Your task to perform on an android device: create a new album in the google photos Image 0: 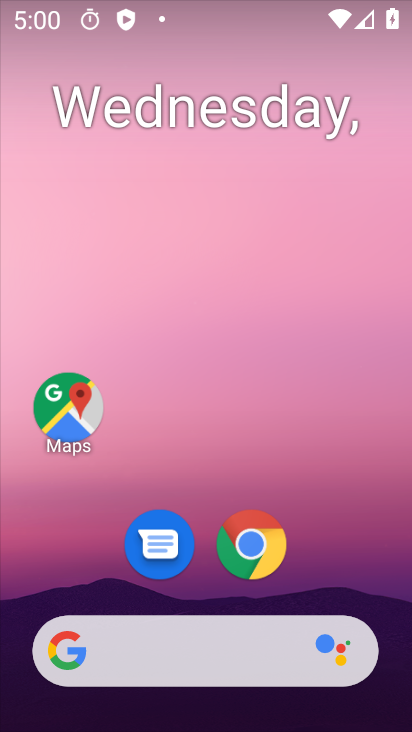
Step 0: drag from (187, 623) to (191, 145)
Your task to perform on an android device: create a new album in the google photos Image 1: 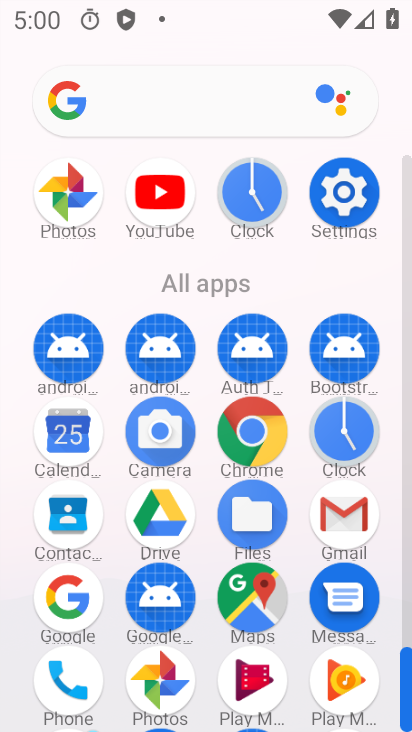
Step 1: click (162, 670)
Your task to perform on an android device: create a new album in the google photos Image 2: 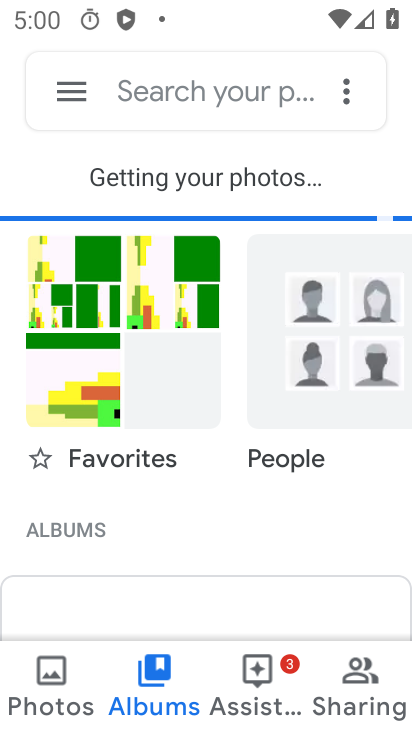
Step 2: drag from (202, 573) to (178, 261)
Your task to perform on an android device: create a new album in the google photos Image 3: 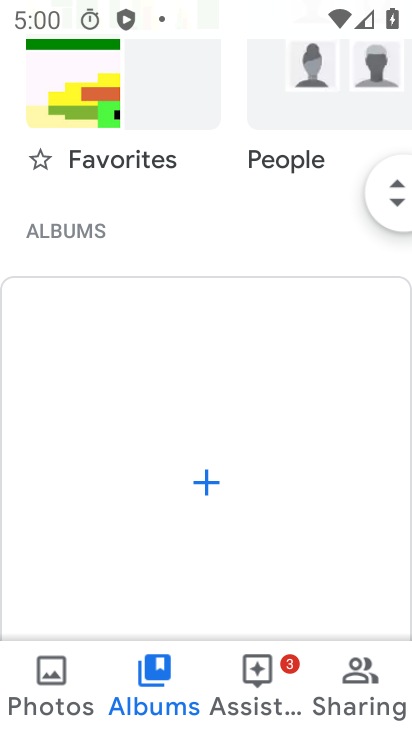
Step 3: click (220, 491)
Your task to perform on an android device: create a new album in the google photos Image 4: 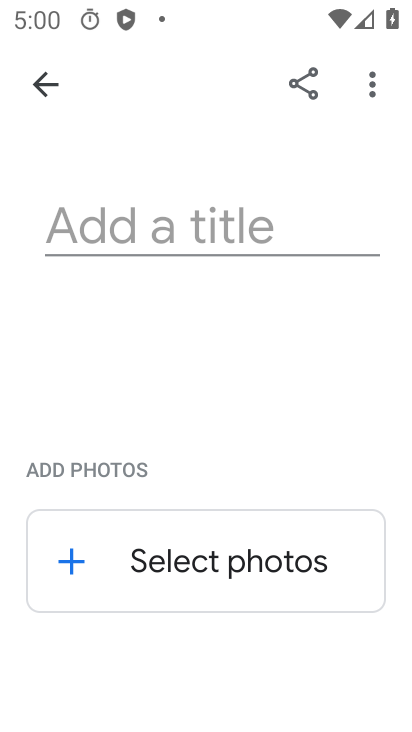
Step 4: click (174, 230)
Your task to perform on an android device: create a new album in the google photos Image 5: 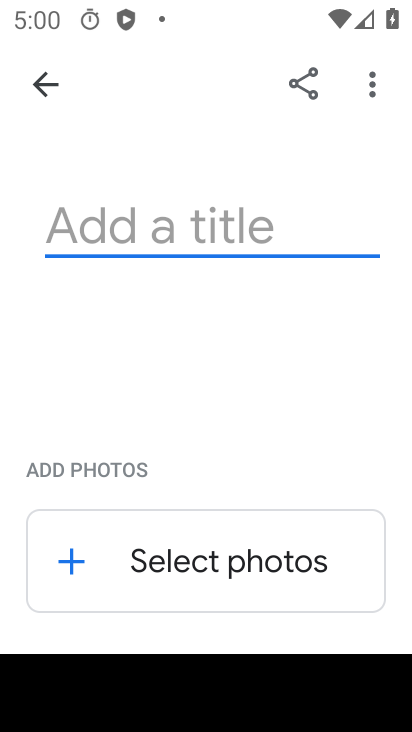
Step 5: type "album08"
Your task to perform on an android device: create a new album in the google photos Image 6: 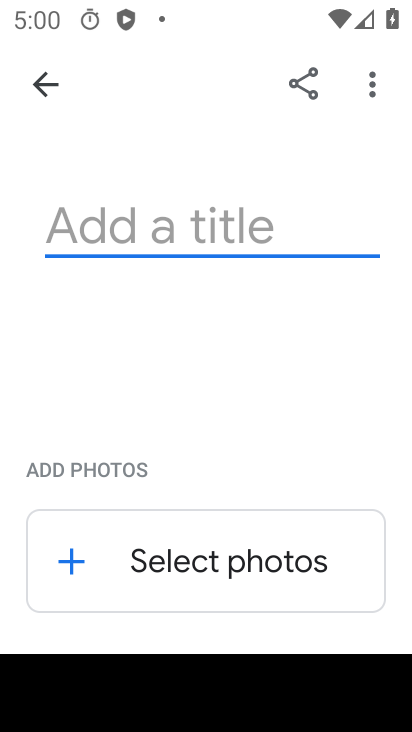
Step 6: click (142, 559)
Your task to perform on an android device: create a new album in the google photos Image 7: 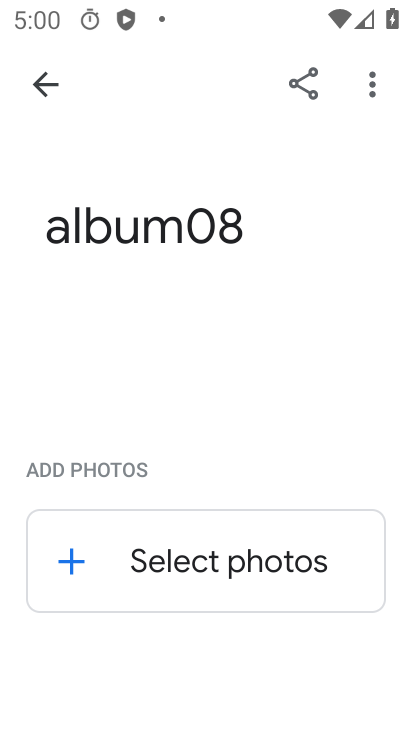
Step 7: click (76, 564)
Your task to perform on an android device: create a new album in the google photos Image 8: 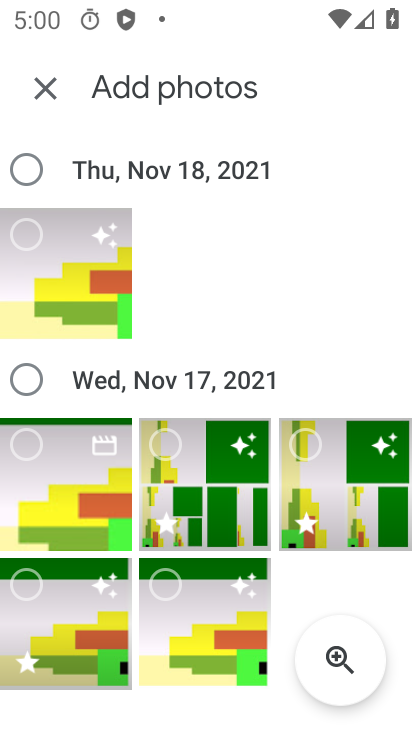
Step 8: click (38, 372)
Your task to perform on an android device: create a new album in the google photos Image 9: 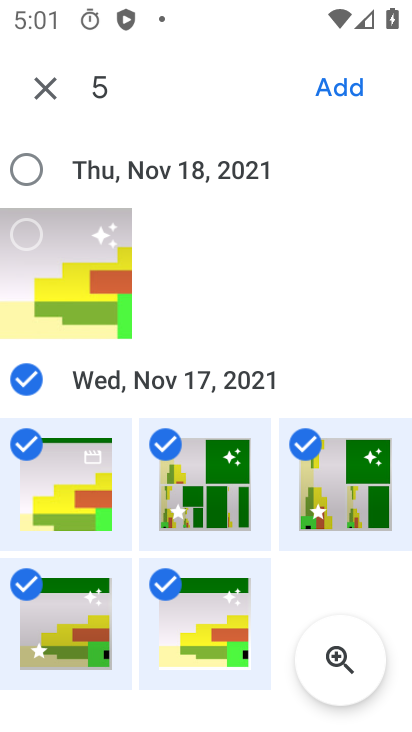
Step 9: click (13, 178)
Your task to perform on an android device: create a new album in the google photos Image 10: 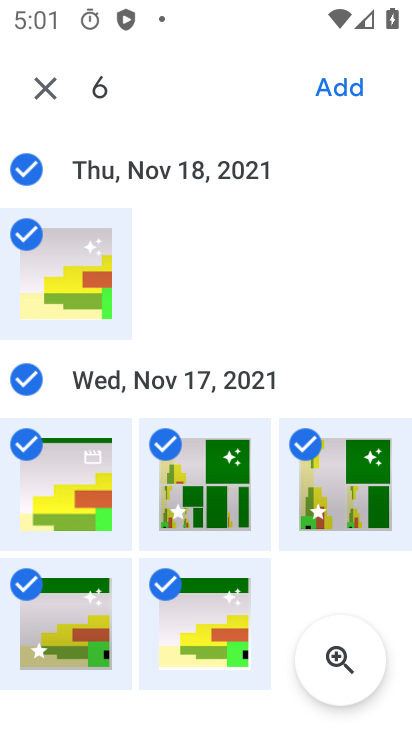
Step 10: click (342, 89)
Your task to perform on an android device: create a new album in the google photos Image 11: 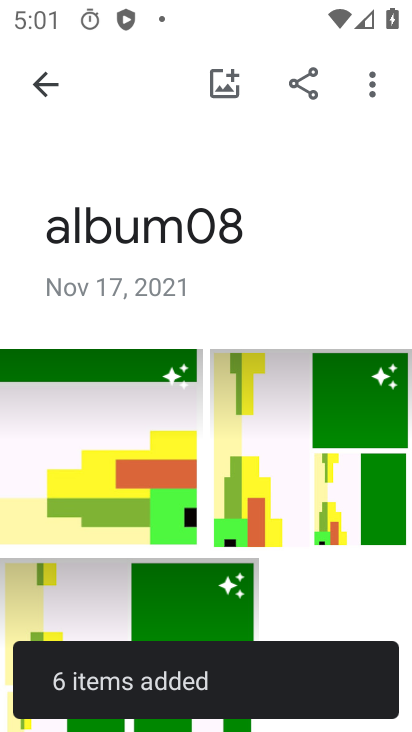
Step 11: task complete